Your task to perform on an android device: Go to network settings Image 0: 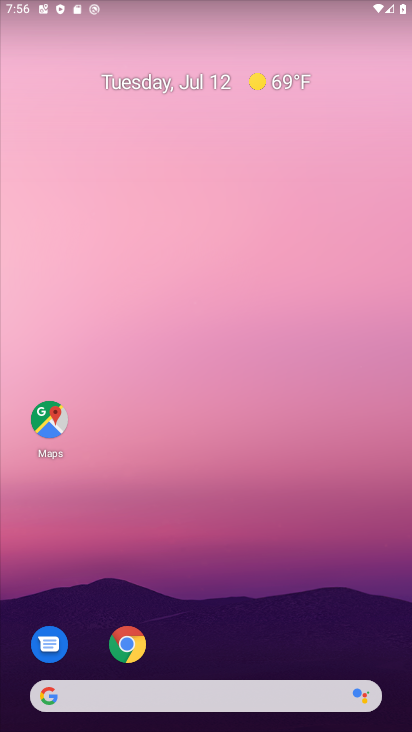
Step 0: press home button
Your task to perform on an android device: Go to network settings Image 1: 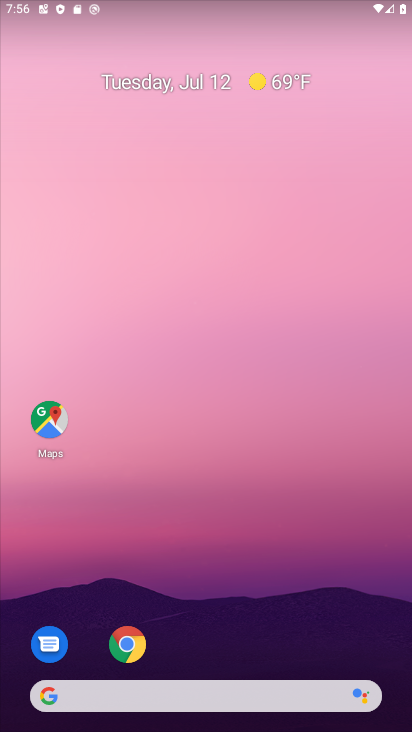
Step 1: drag from (209, 660) to (215, 108)
Your task to perform on an android device: Go to network settings Image 2: 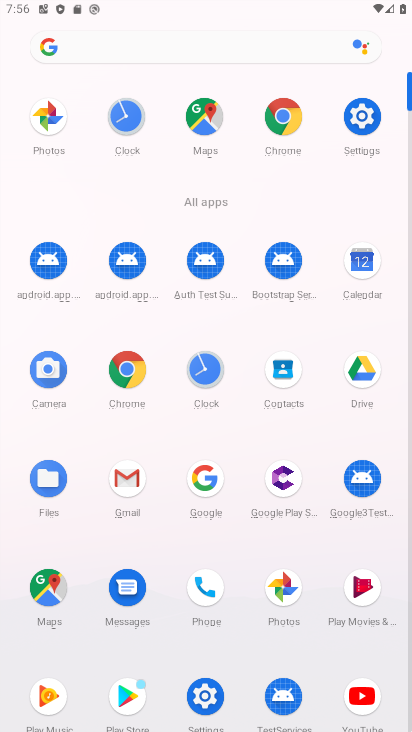
Step 2: click (360, 109)
Your task to perform on an android device: Go to network settings Image 3: 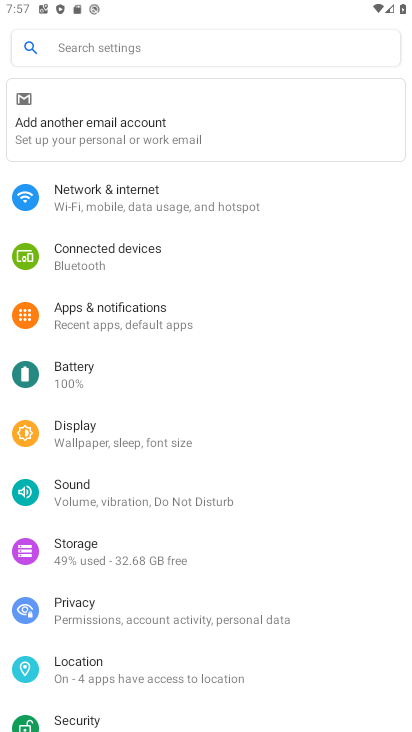
Step 3: click (182, 192)
Your task to perform on an android device: Go to network settings Image 4: 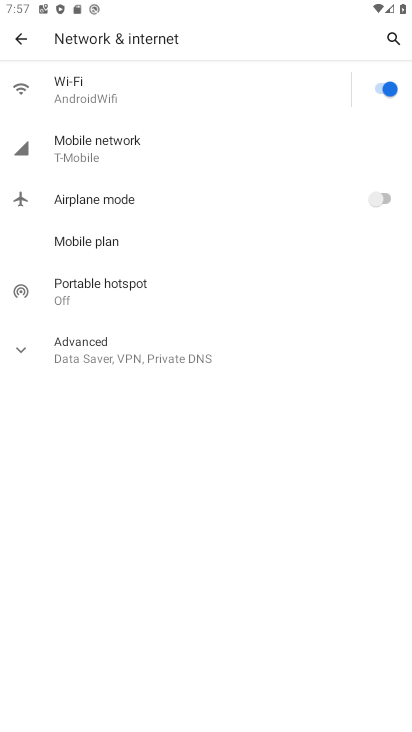
Step 4: click (27, 351)
Your task to perform on an android device: Go to network settings Image 5: 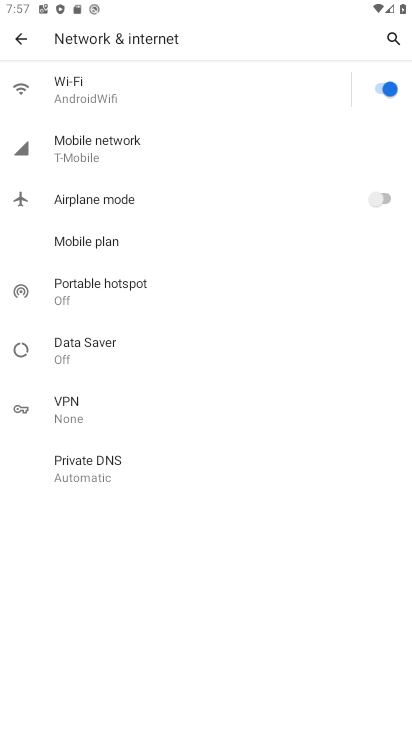
Step 5: task complete